Your task to perform on an android device: What's on my calendar tomorrow? Image 0: 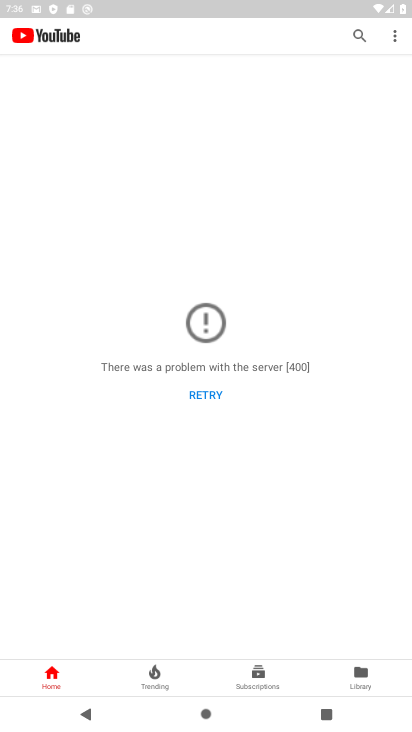
Step 0: press home button
Your task to perform on an android device: What's on my calendar tomorrow? Image 1: 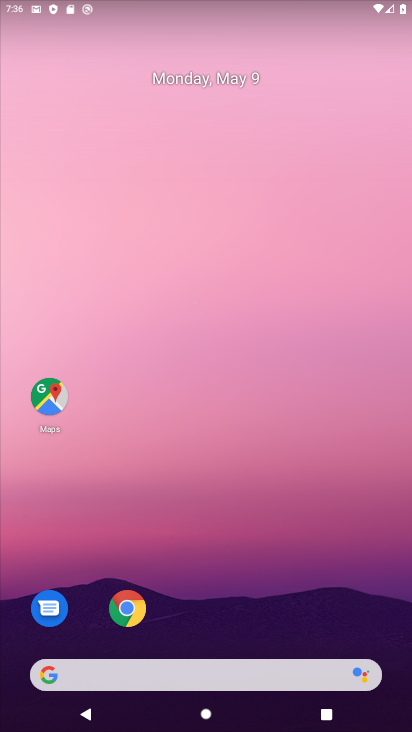
Step 1: drag from (257, 242) to (262, 55)
Your task to perform on an android device: What's on my calendar tomorrow? Image 2: 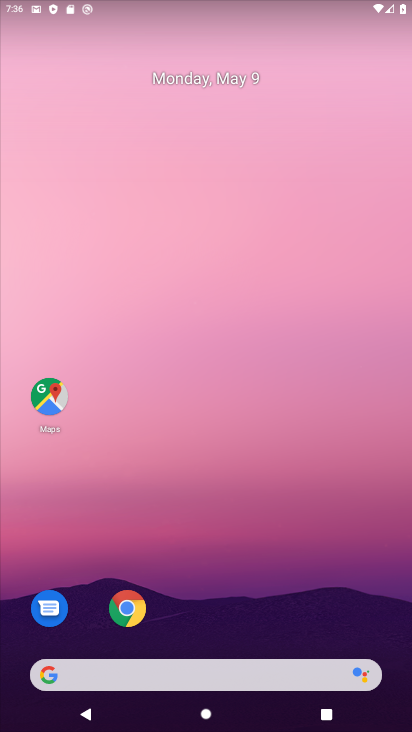
Step 2: drag from (272, 717) to (267, 13)
Your task to perform on an android device: What's on my calendar tomorrow? Image 3: 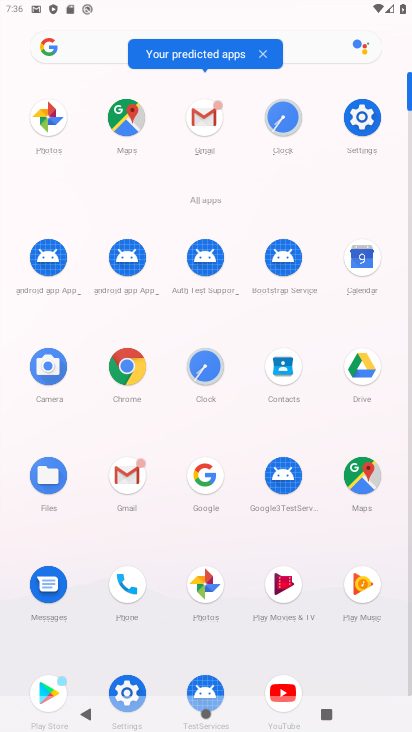
Step 3: click (365, 266)
Your task to perform on an android device: What's on my calendar tomorrow? Image 4: 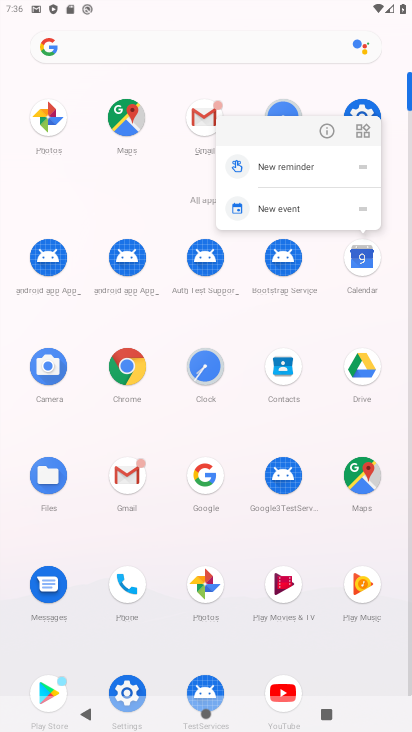
Step 4: click (366, 258)
Your task to perform on an android device: What's on my calendar tomorrow? Image 5: 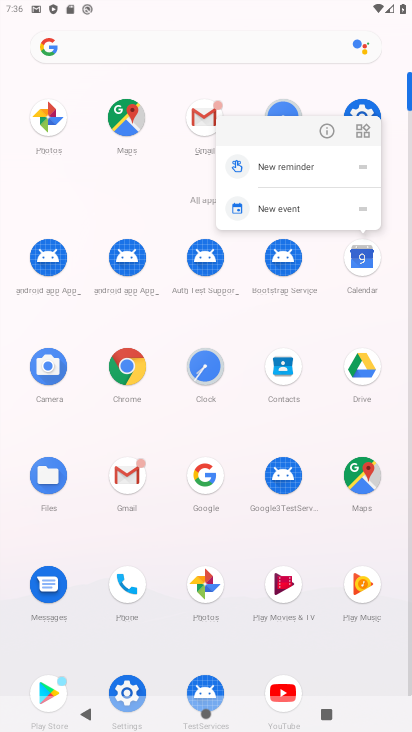
Step 5: click (366, 258)
Your task to perform on an android device: What's on my calendar tomorrow? Image 6: 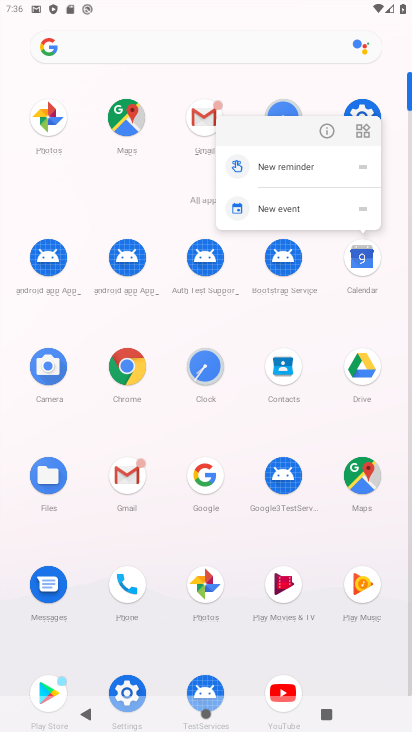
Step 6: click (366, 258)
Your task to perform on an android device: What's on my calendar tomorrow? Image 7: 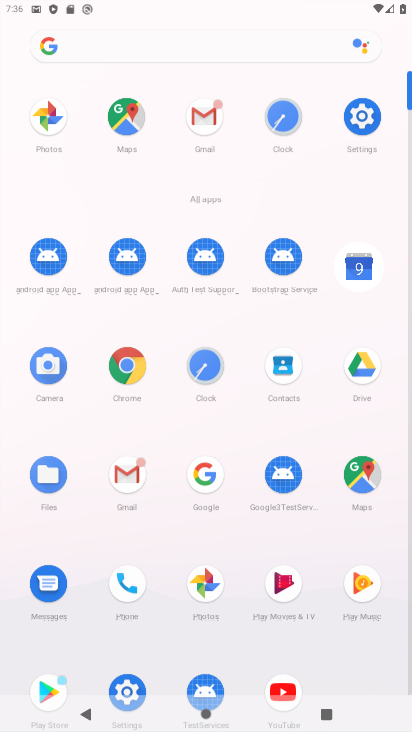
Step 7: click (366, 258)
Your task to perform on an android device: What's on my calendar tomorrow? Image 8: 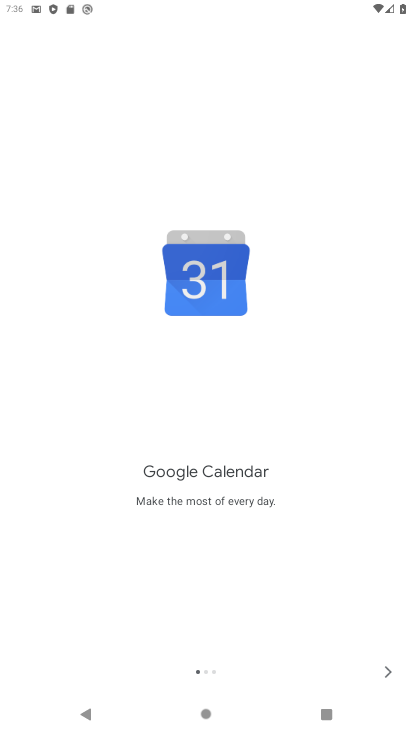
Step 8: click (384, 664)
Your task to perform on an android device: What's on my calendar tomorrow? Image 9: 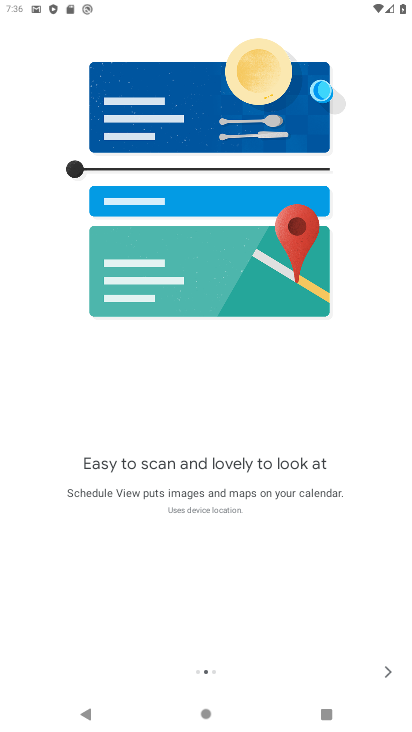
Step 9: click (384, 664)
Your task to perform on an android device: What's on my calendar tomorrow? Image 10: 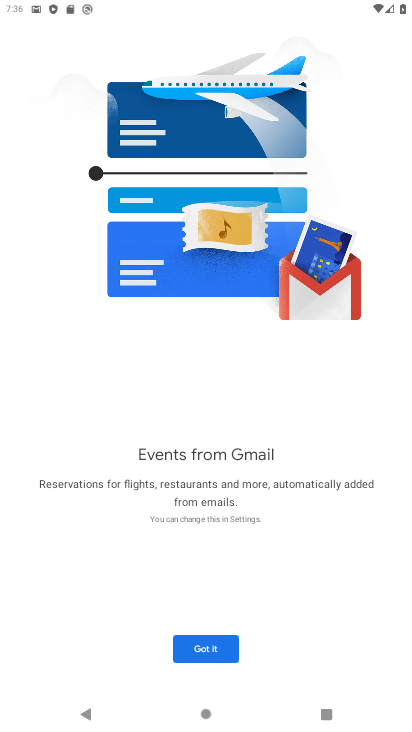
Step 10: click (196, 651)
Your task to perform on an android device: What's on my calendar tomorrow? Image 11: 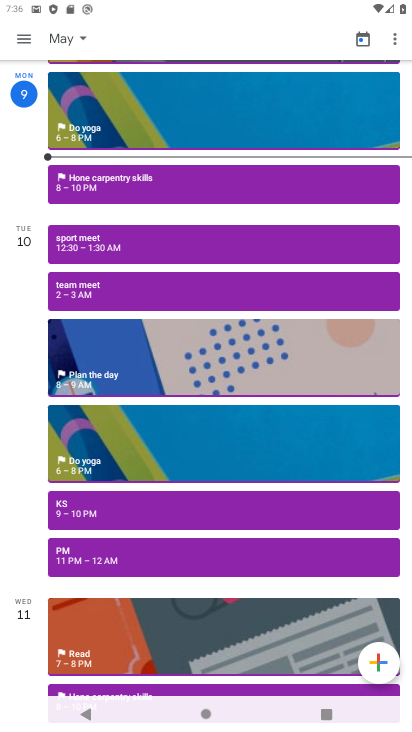
Step 11: click (62, 38)
Your task to perform on an android device: What's on my calendar tomorrow? Image 12: 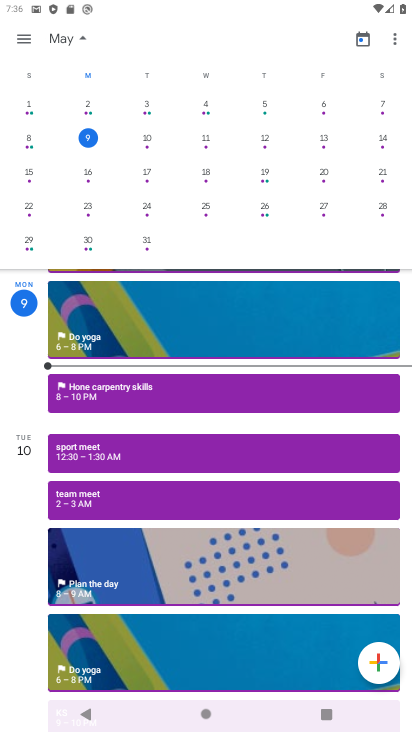
Step 12: click (151, 136)
Your task to perform on an android device: What's on my calendar tomorrow? Image 13: 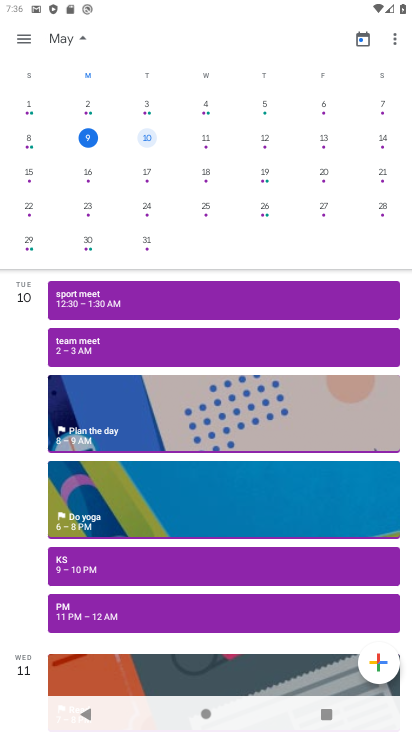
Step 13: task complete